Your task to perform on an android device: open chrome and create a bookmark for the current page Image 0: 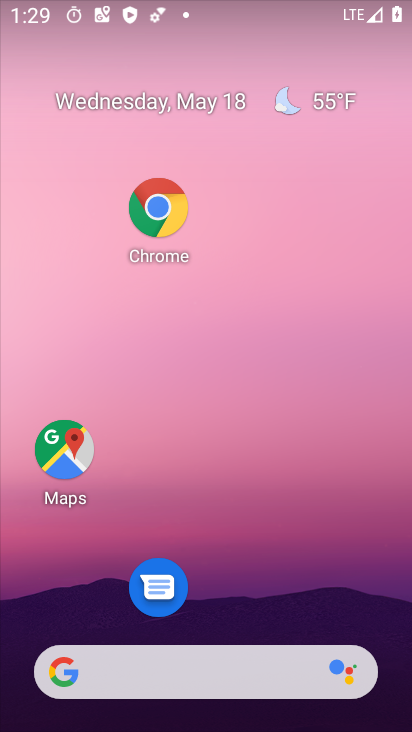
Step 0: click (185, 257)
Your task to perform on an android device: open chrome and create a bookmark for the current page Image 1: 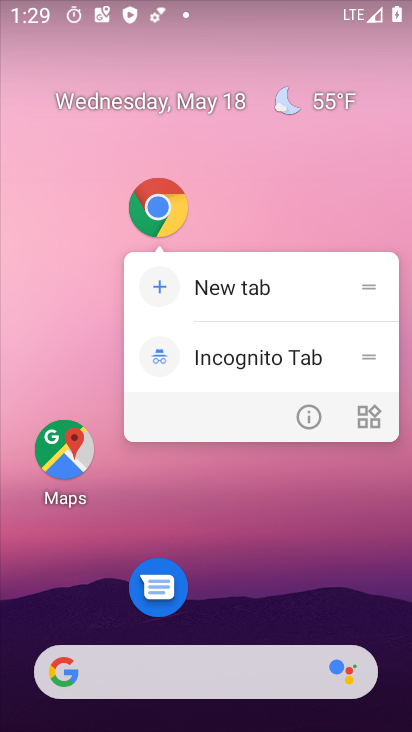
Step 1: click (158, 221)
Your task to perform on an android device: open chrome and create a bookmark for the current page Image 2: 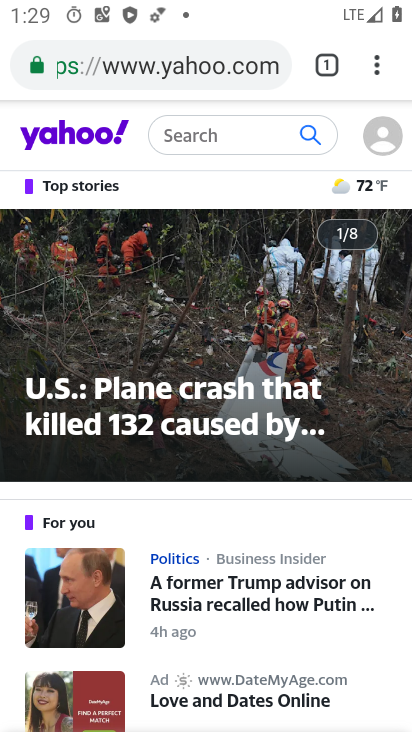
Step 2: click (377, 62)
Your task to perform on an android device: open chrome and create a bookmark for the current page Image 3: 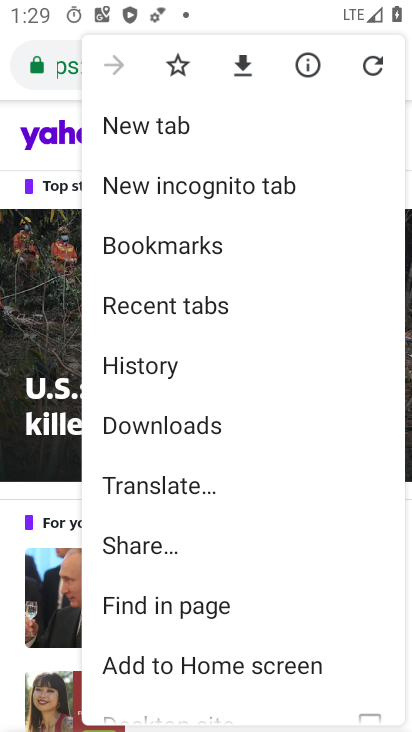
Step 3: click (178, 73)
Your task to perform on an android device: open chrome and create a bookmark for the current page Image 4: 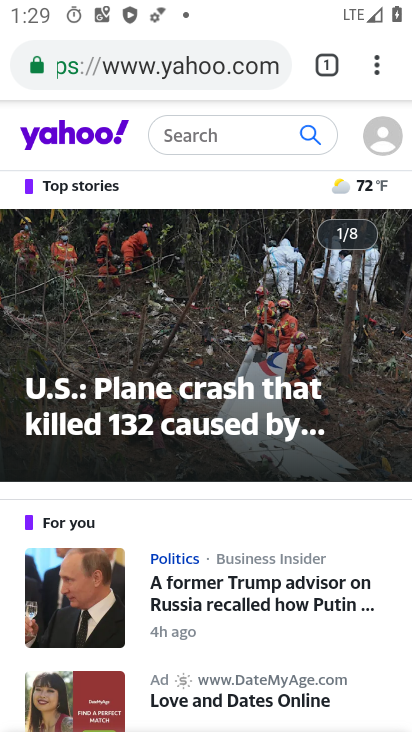
Step 4: task complete